Your task to perform on an android device: clear history in the chrome app Image 0: 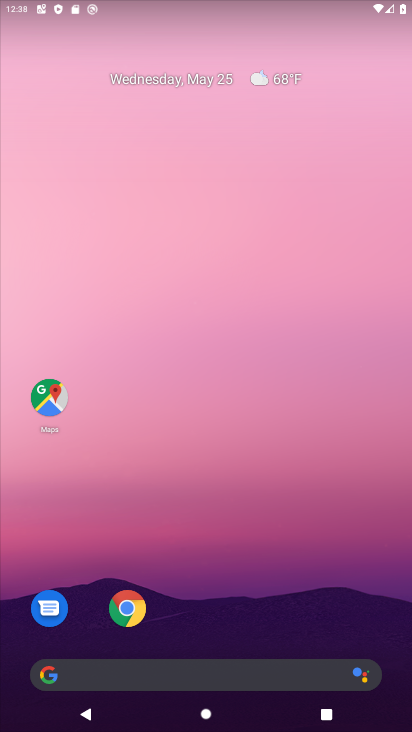
Step 0: click (132, 621)
Your task to perform on an android device: clear history in the chrome app Image 1: 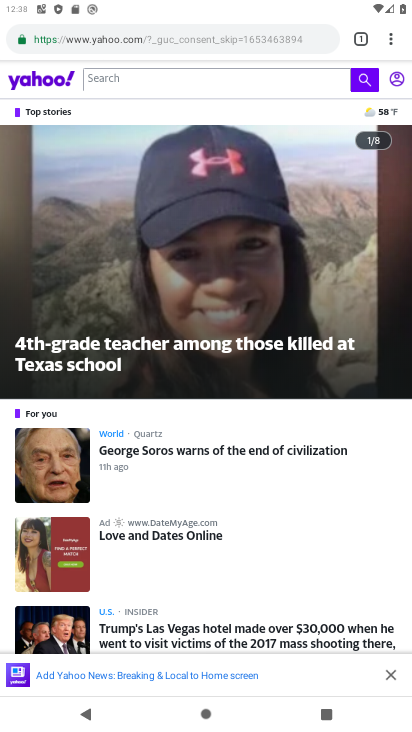
Step 1: click (389, 39)
Your task to perform on an android device: clear history in the chrome app Image 2: 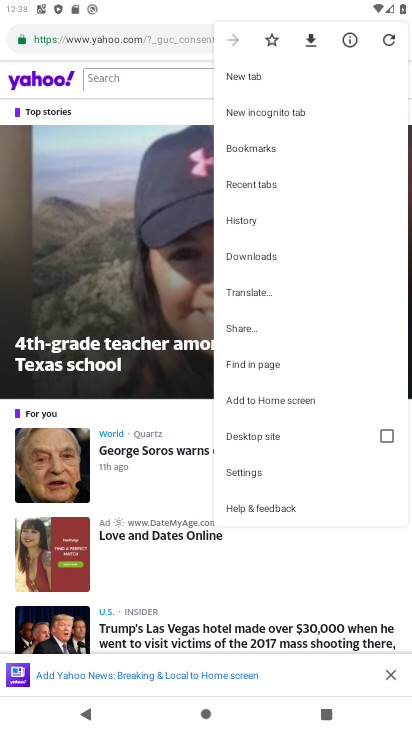
Step 2: click (269, 226)
Your task to perform on an android device: clear history in the chrome app Image 3: 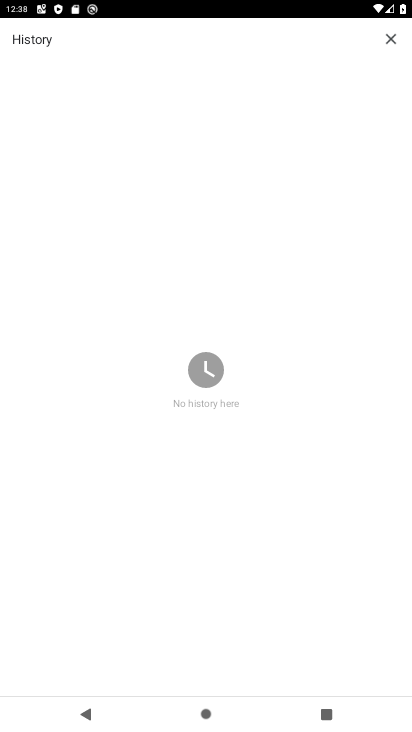
Step 3: task complete